Your task to perform on an android device: find photos in the google photos app Image 0: 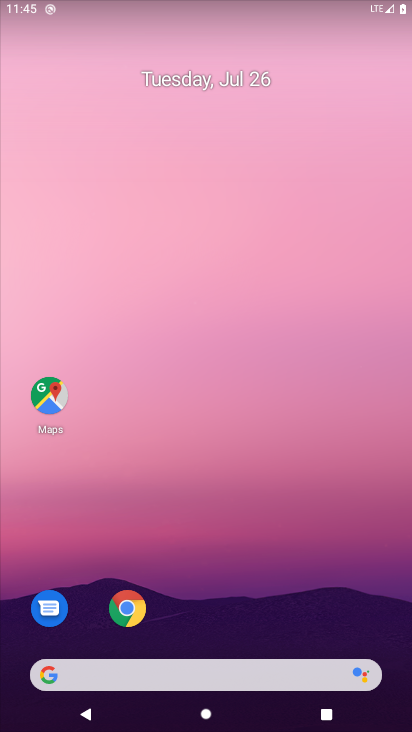
Step 0: press home button
Your task to perform on an android device: find photos in the google photos app Image 1: 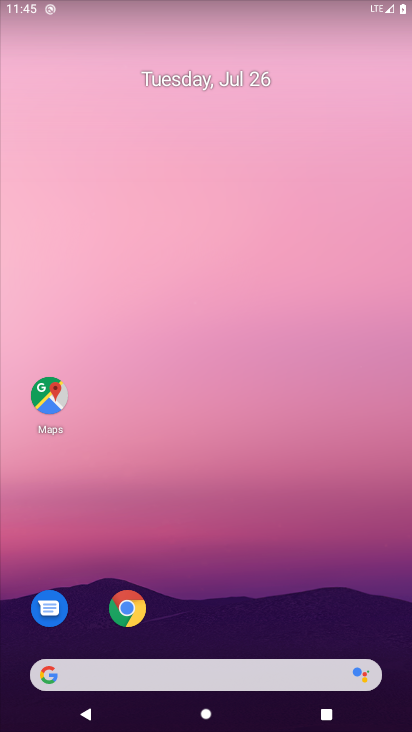
Step 1: drag from (280, 594) to (215, 93)
Your task to perform on an android device: find photos in the google photos app Image 2: 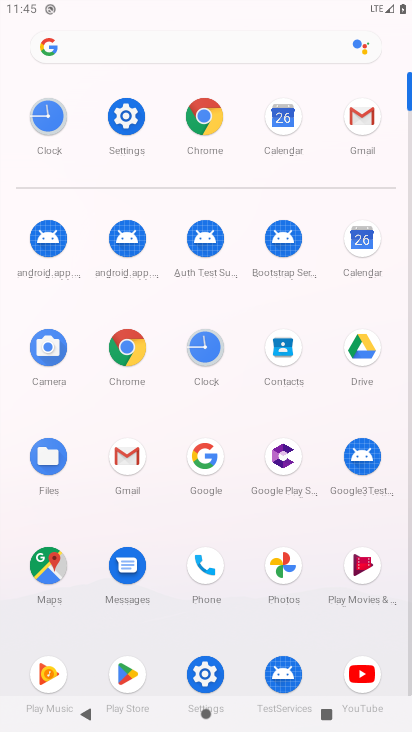
Step 2: click (280, 566)
Your task to perform on an android device: find photos in the google photos app Image 3: 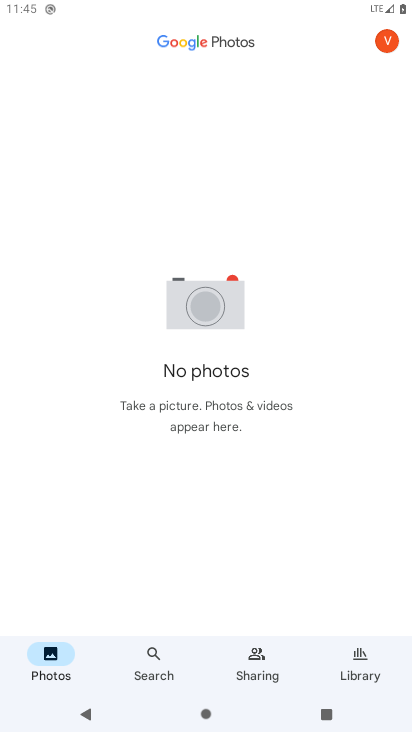
Step 3: click (147, 648)
Your task to perform on an android device: find photos in the google photos app Image 4: 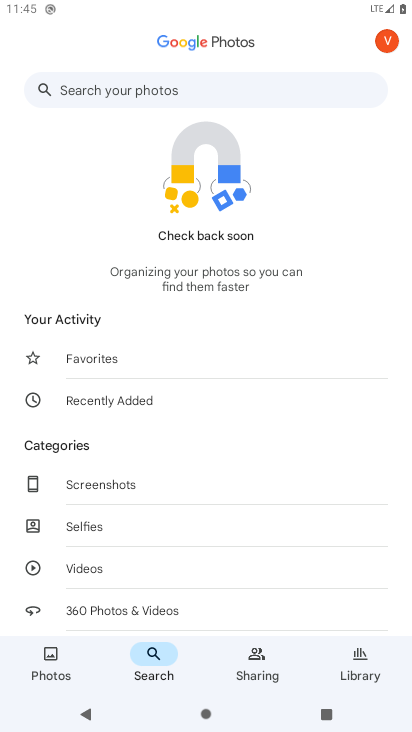
Step 4: task complete